Your task to perform on an android device: Clear the shopping cart on ebay.com. Add macbook to the cart on ebay.com Image 0: 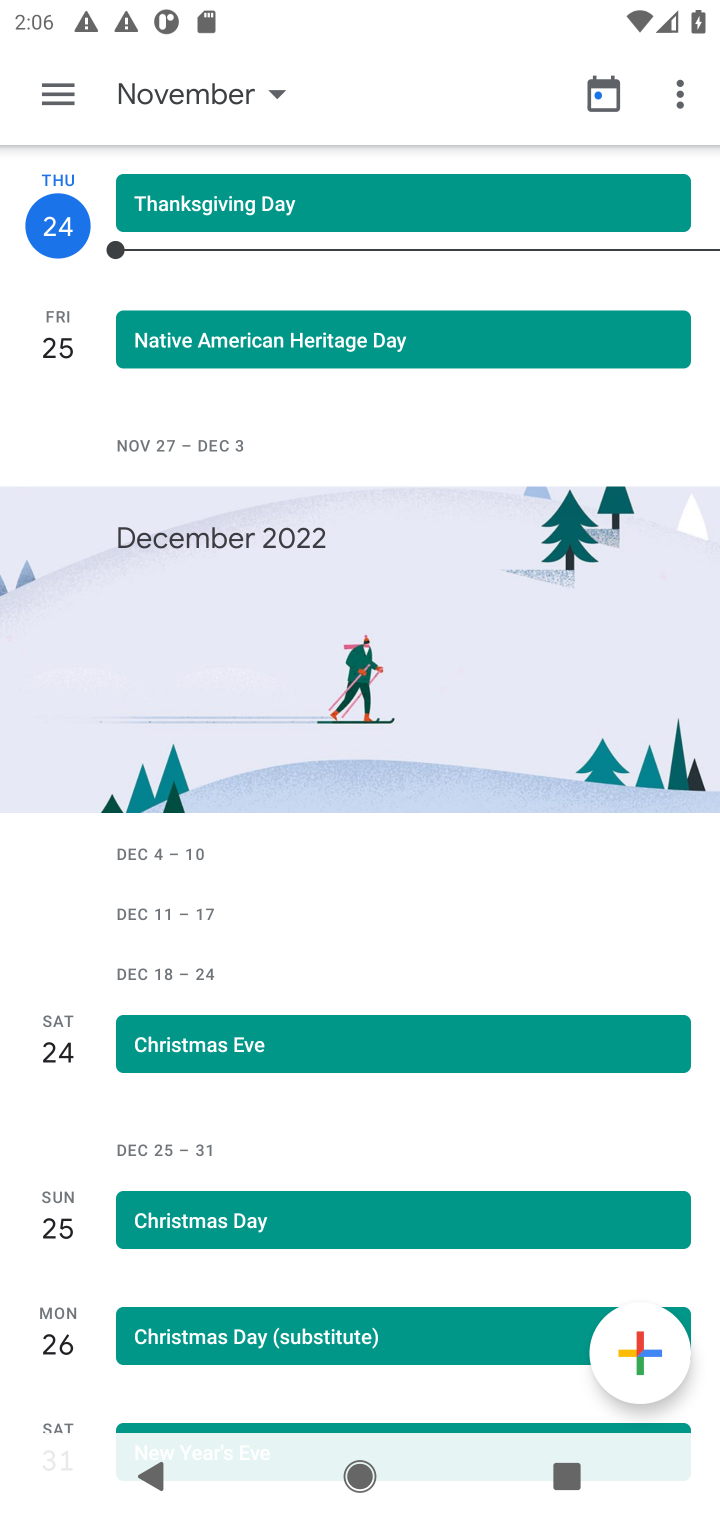
Step 0: press home button
Your task to perform on an android device: Clear the shopping cart on ebay.com. Add macbook to the cart on ebay.com Image 1: 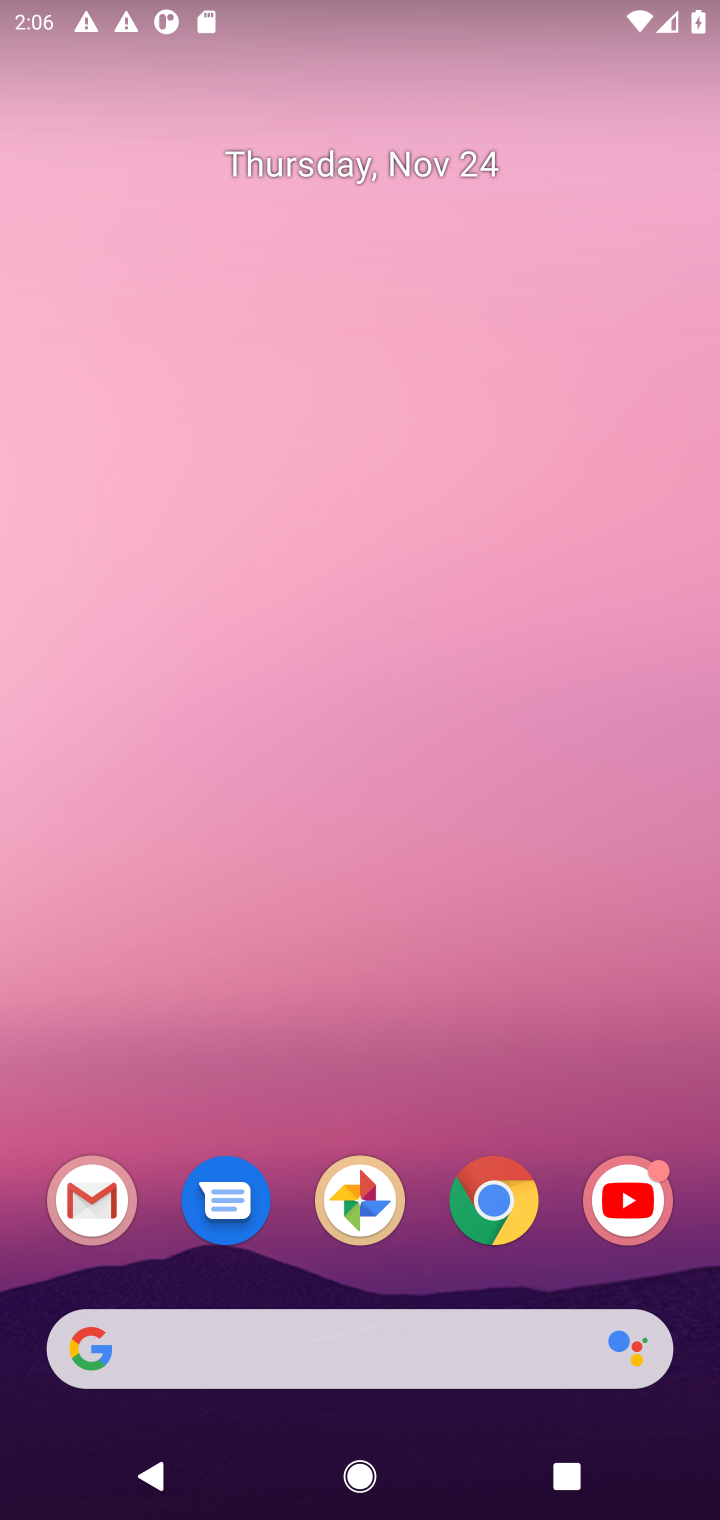
Step 1: click (283, 1358)
Your task to perform on an android device: Clear the shopping cart on ebay.com. Add macbook to the cart on ebay.com Image 2: 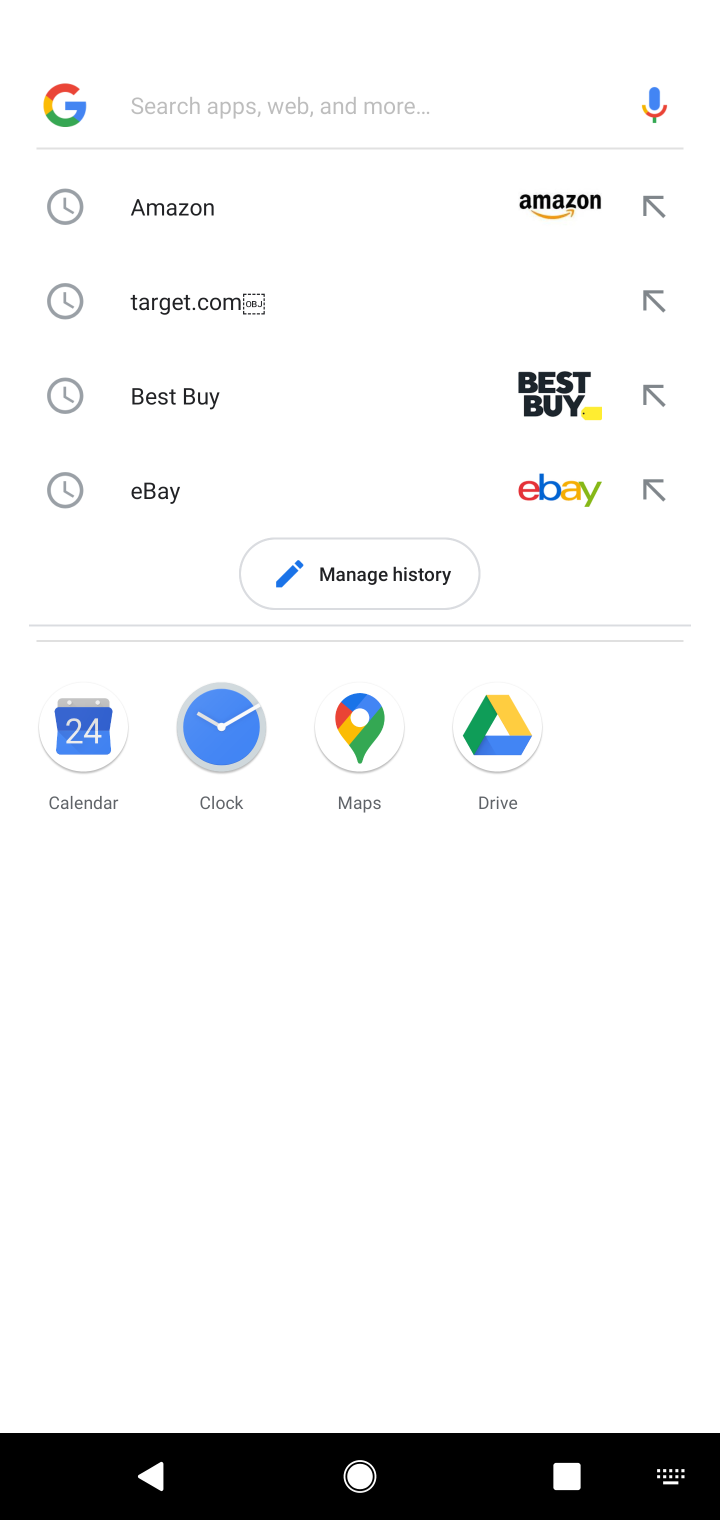
Step 2: type "ebay.om"
Your task to perform on an android device: Clear the shopping cart on ebay.com. Add macbook to the cart on ebay.com Image 3: 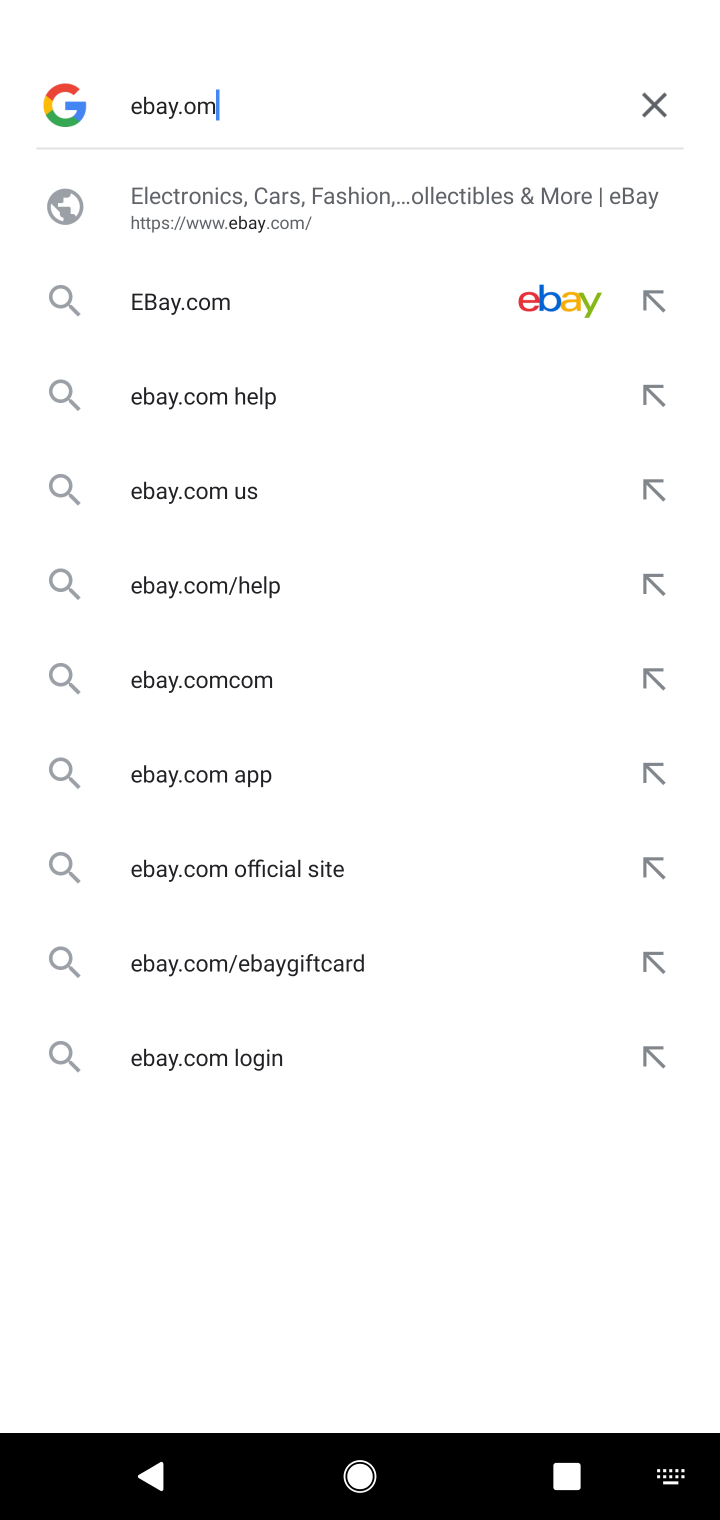
Step 3: click (189, 244)
Your task to perform on an android device: Clear the shopping cart on ebay.com. Add macbook to the cart on ebay.com Image 4: 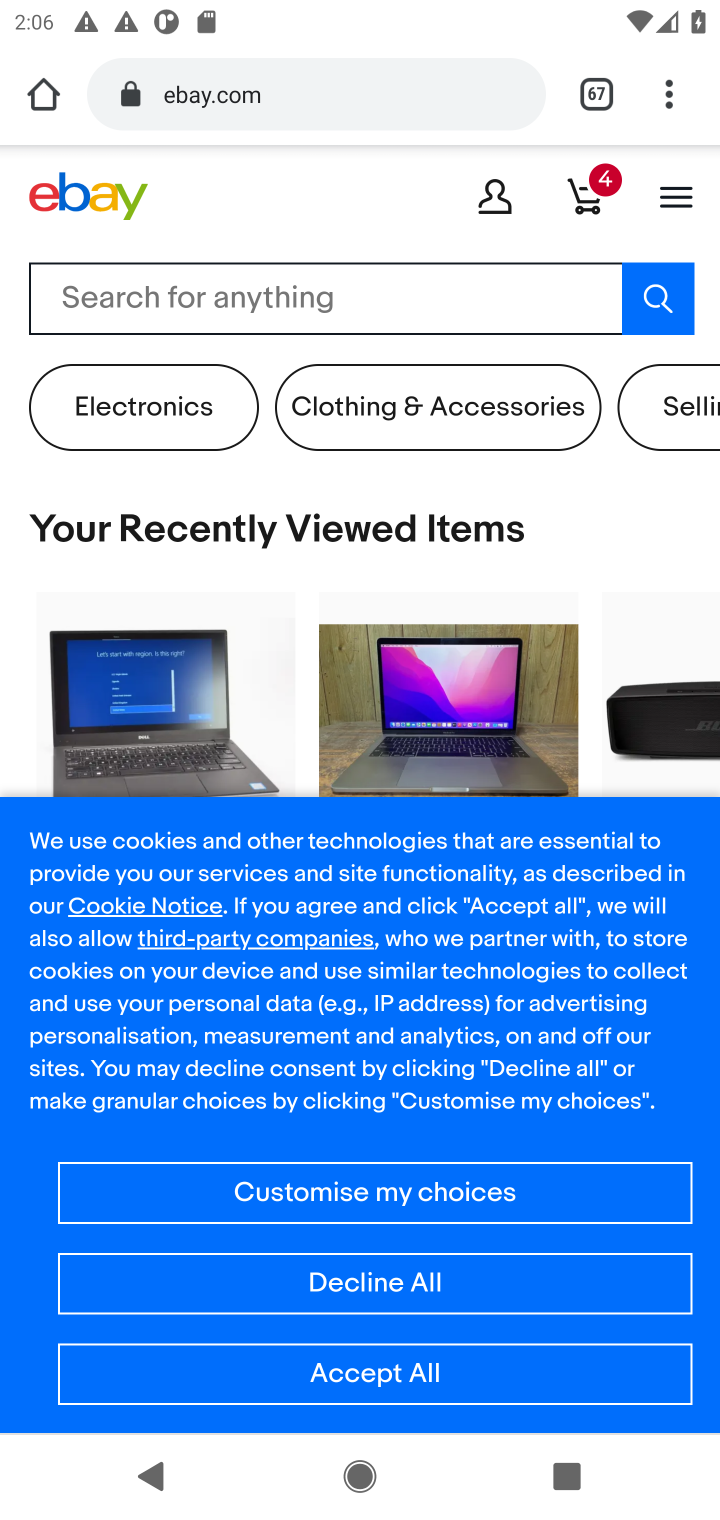
Step 4: click (477, 1372)
Your task to perform on an android device: Clear the shopping cart on ebay.com. Add macbook to the cart on ebay.com Image 5: 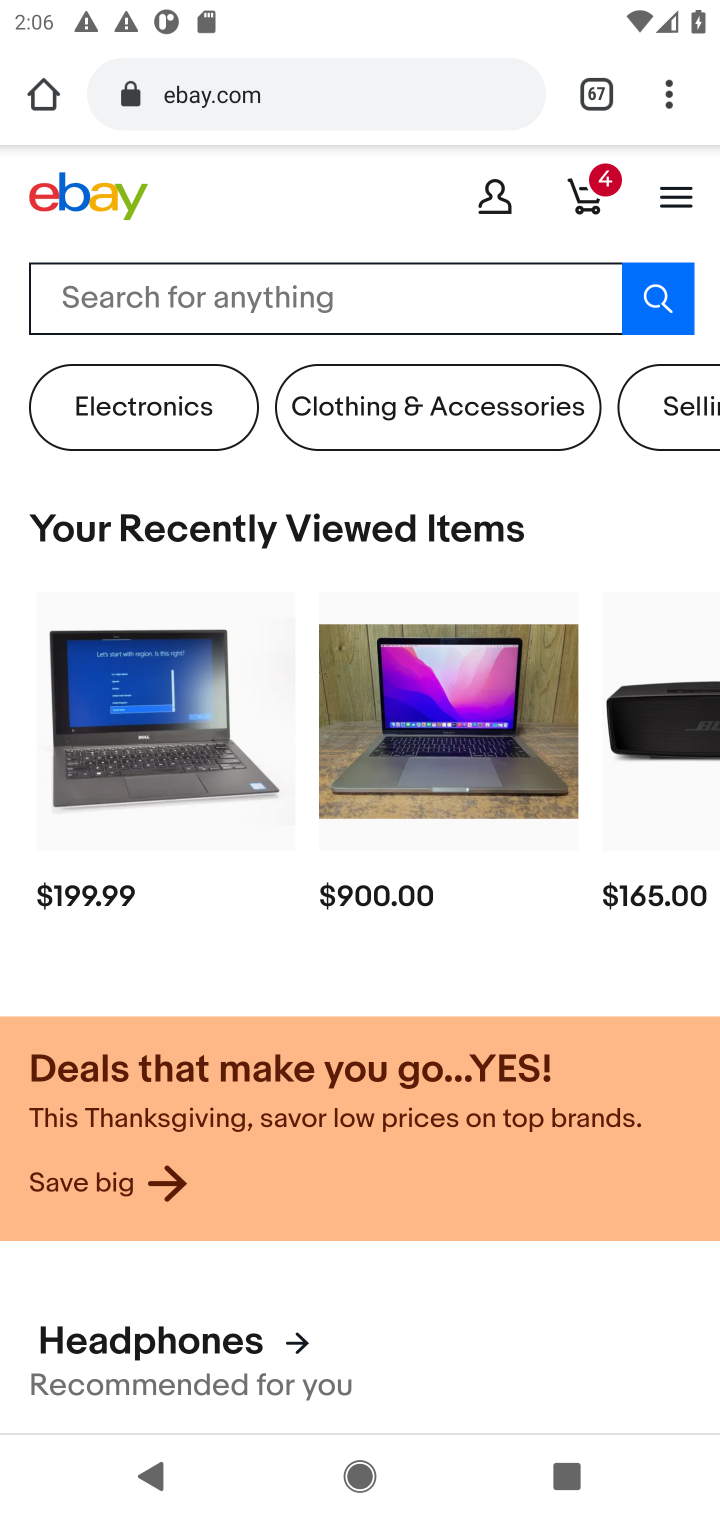
Step 5: click (280, 308)
Your task to perform on an android device: Clear the shopping cart on ebay.com. Add macbook to the cart on ebay.com Image 6: 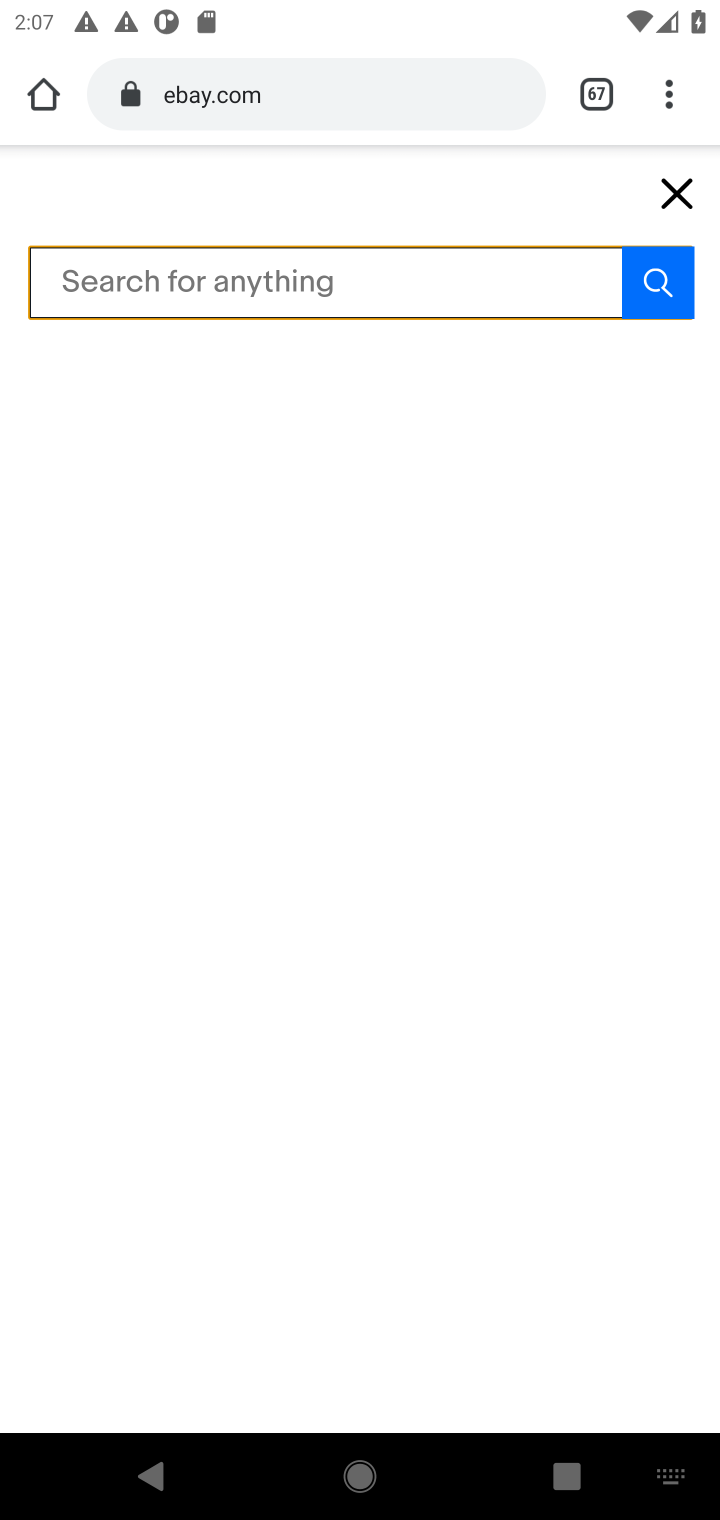
Step 6: type "macbook "
Your task to perform on an android device: Clear the shopping cart on ebay.com. Add macbook to the cart on ebay.com Image 7: 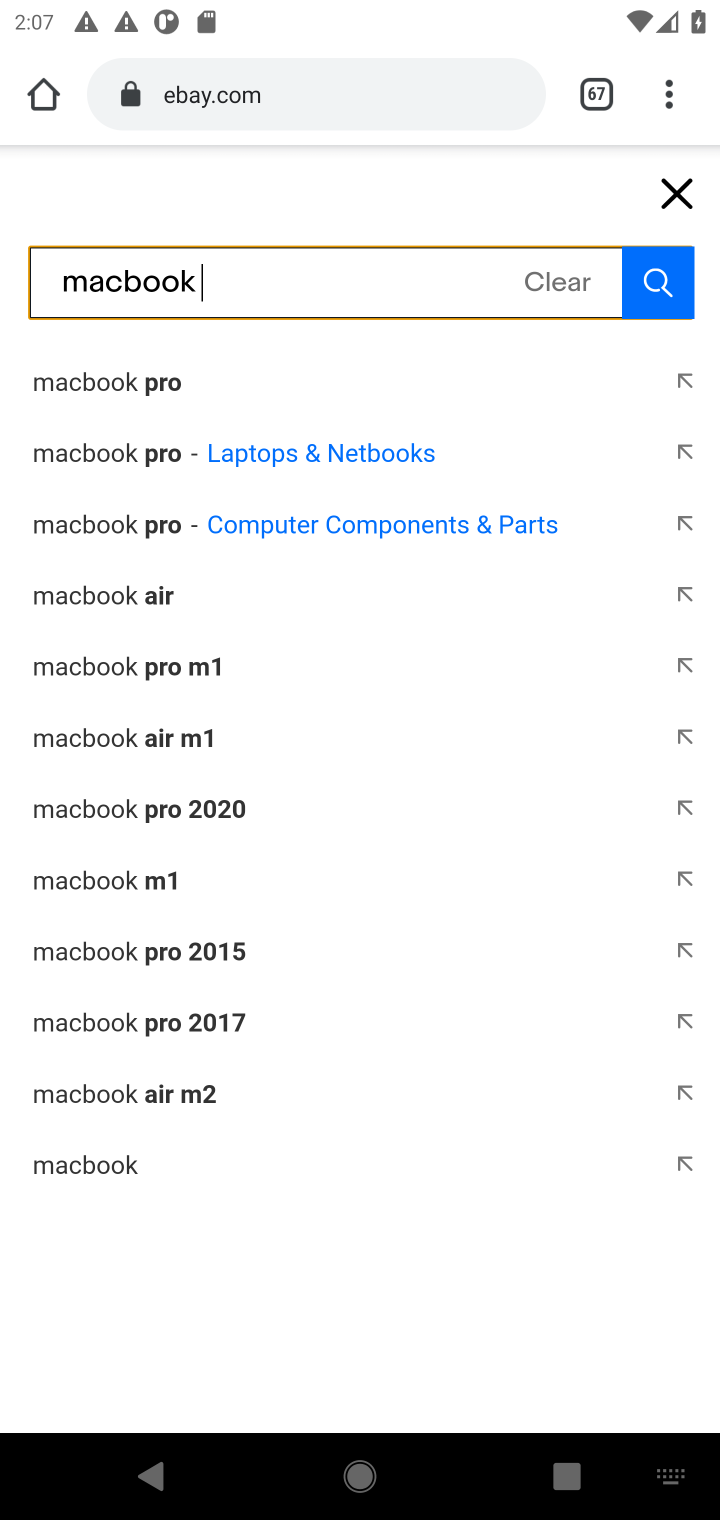
Step 7: click (70, 412)
Your task to perform on an android device: Clear the shopping cart on ebay.com. Add macbook to the cart on ebay.com Image 8: 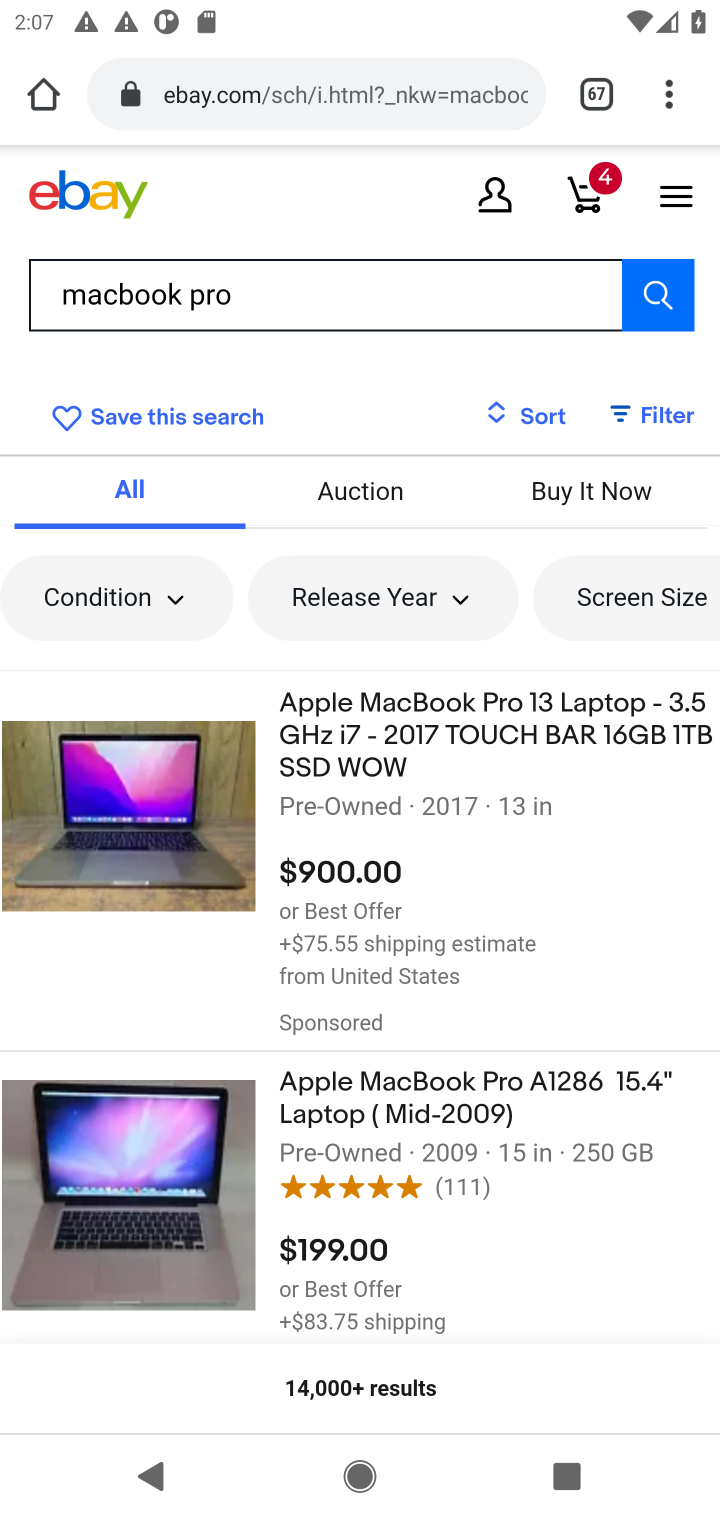
Step 8: click (311, 793)
Your task to perform on an android device: Clear the shopping cart on ebay.com. Add macbook to the cart on ebay.com Image 9: 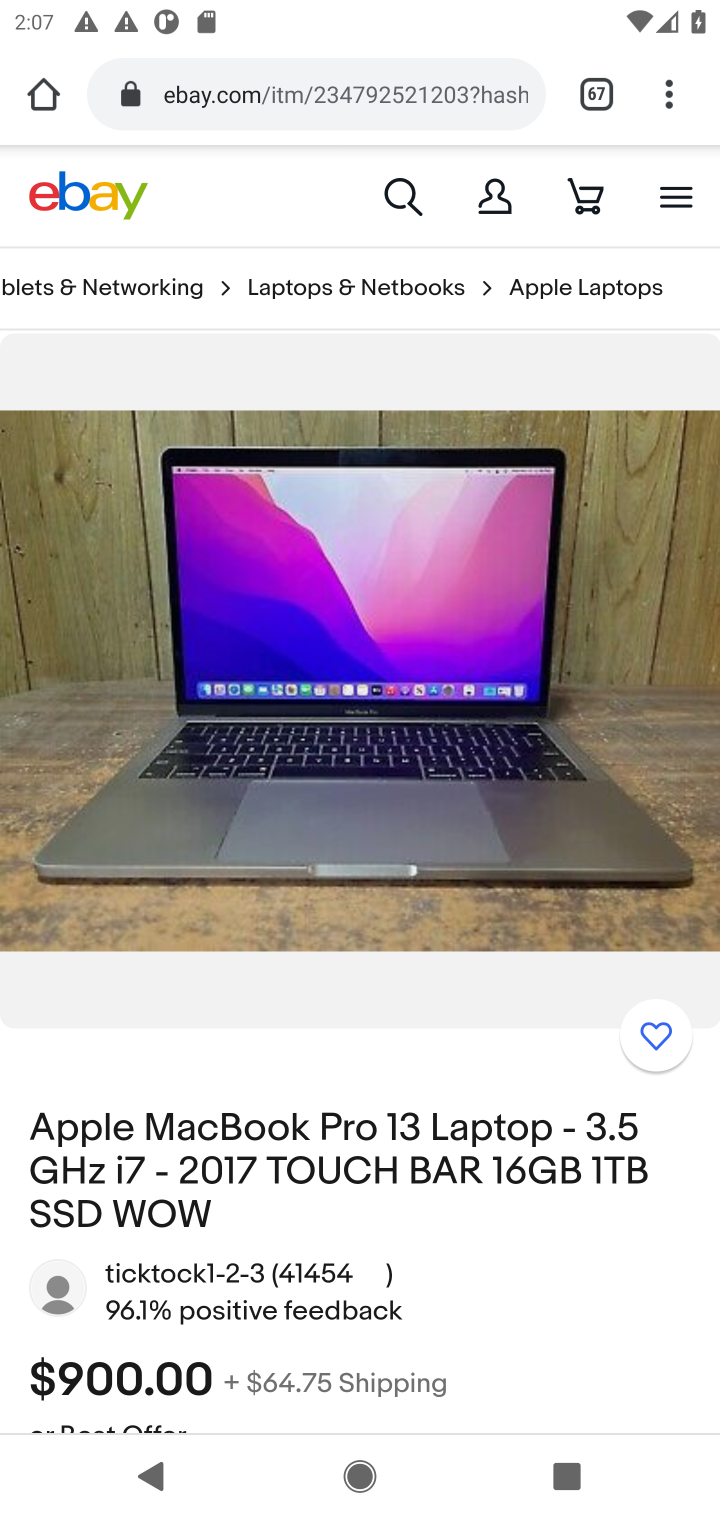
Step 9: drag from (506, 1166) to (357, 467)
Your task to perform on an android device: Clear the shopping cart on ebay.com. Add macbook to the cart on ebay.com Image 10: 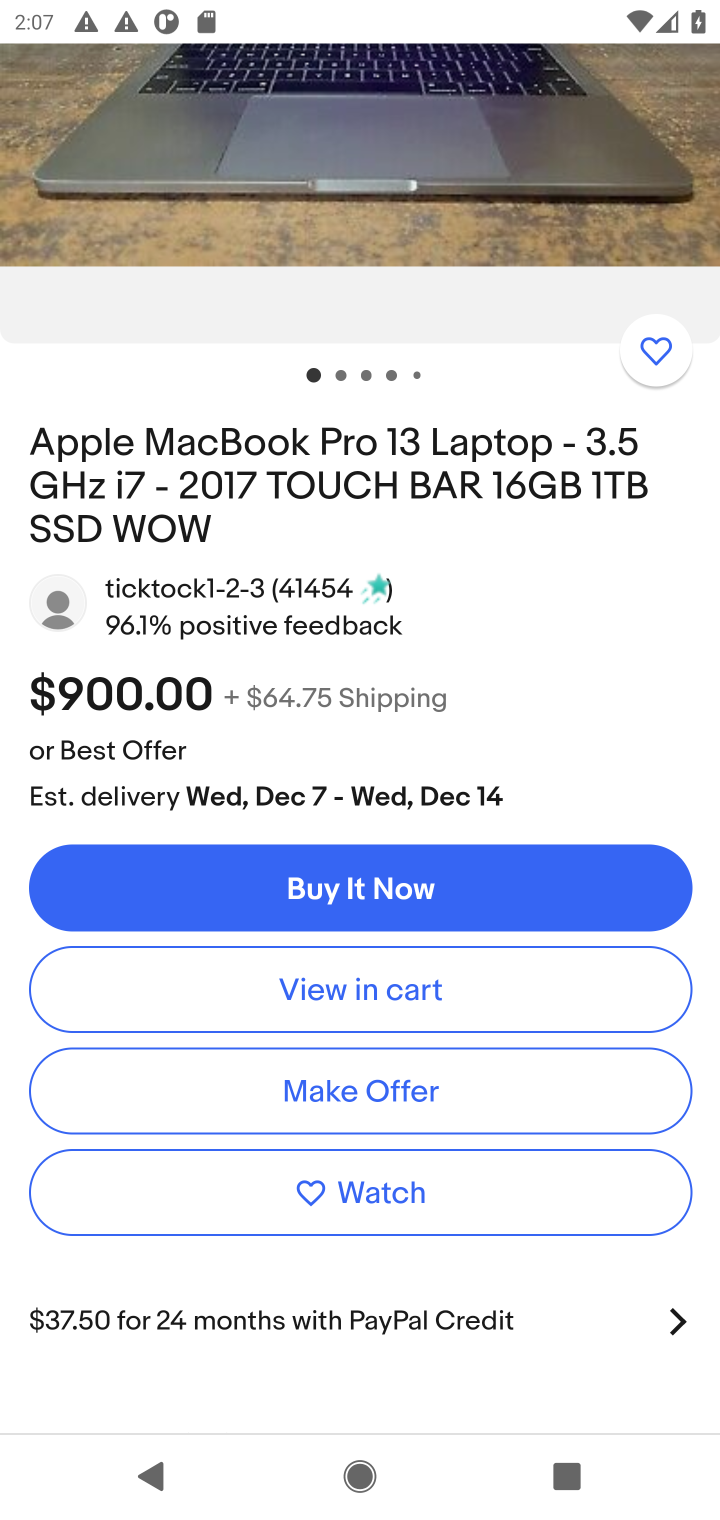
Step 10: click (371, 998)
Your task to perform on an android device: Clear the shopping cart on ebay.com. Add macbook to the cart on ebay.com Image 11: 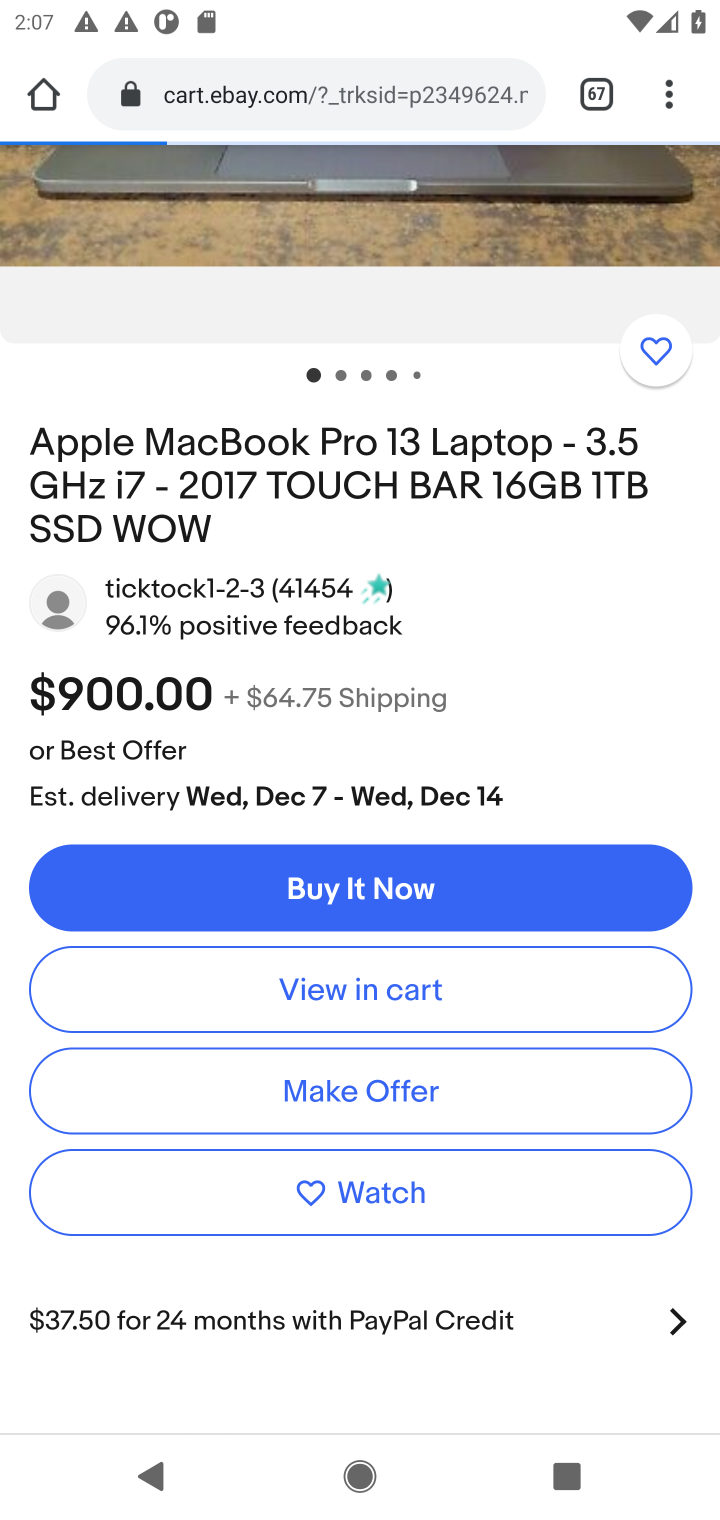
Step 11: task complete